Your task to perform on an android device: empty trash in google photos Image 0: 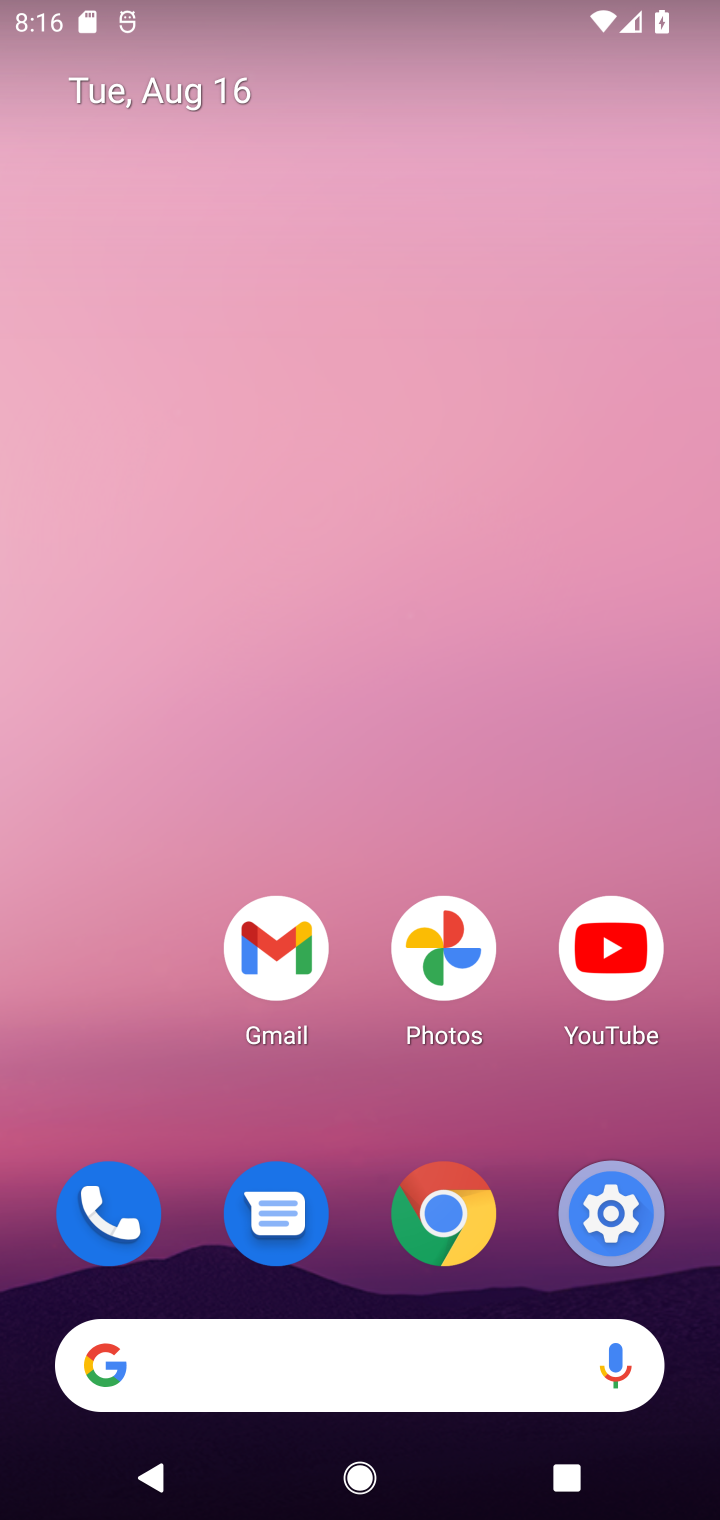
Step 0: drag from (161, 1164) to (219, 288)
Your task to perform on an android device: empty trash in google photos Image 1: 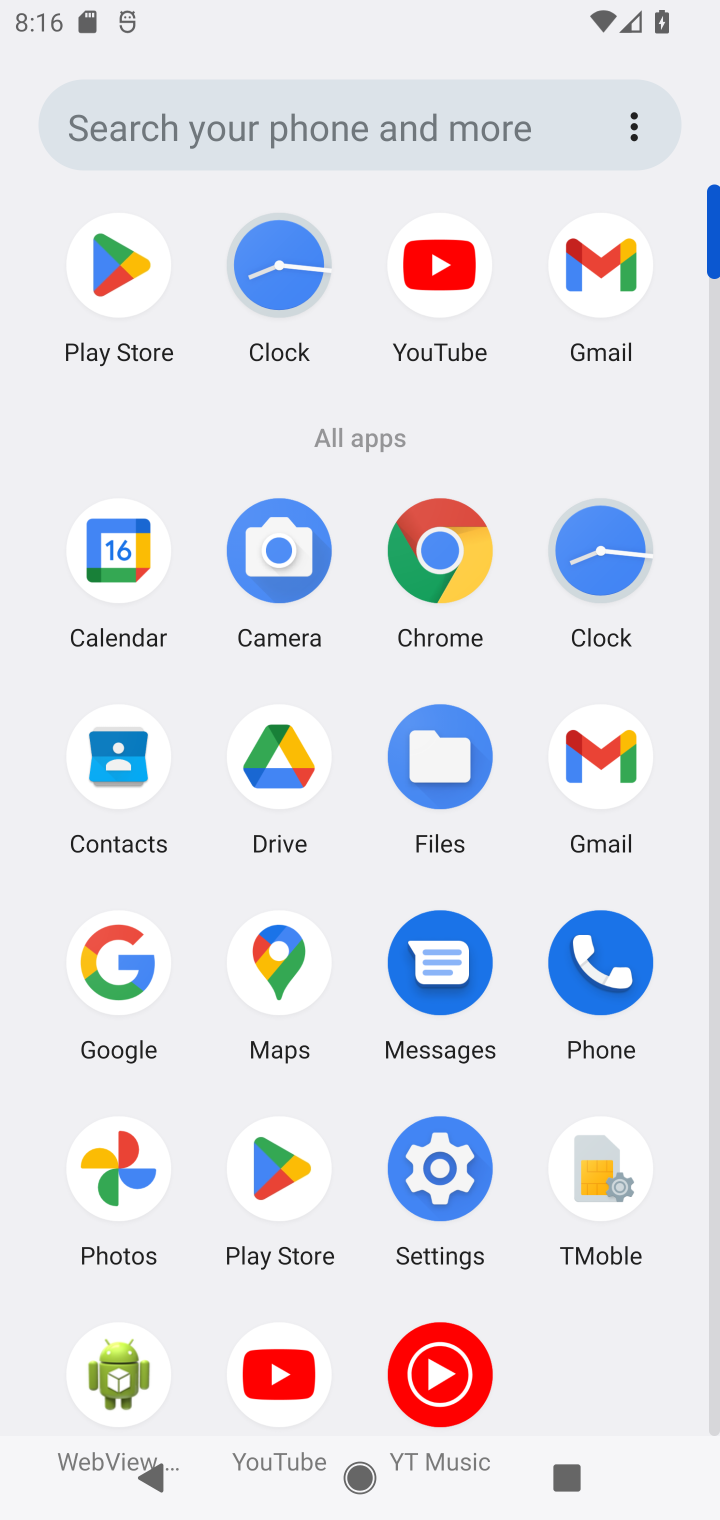
Step 1: click (588, 738)
Your task to perform on an android device: empty trash in google photos Image 2: 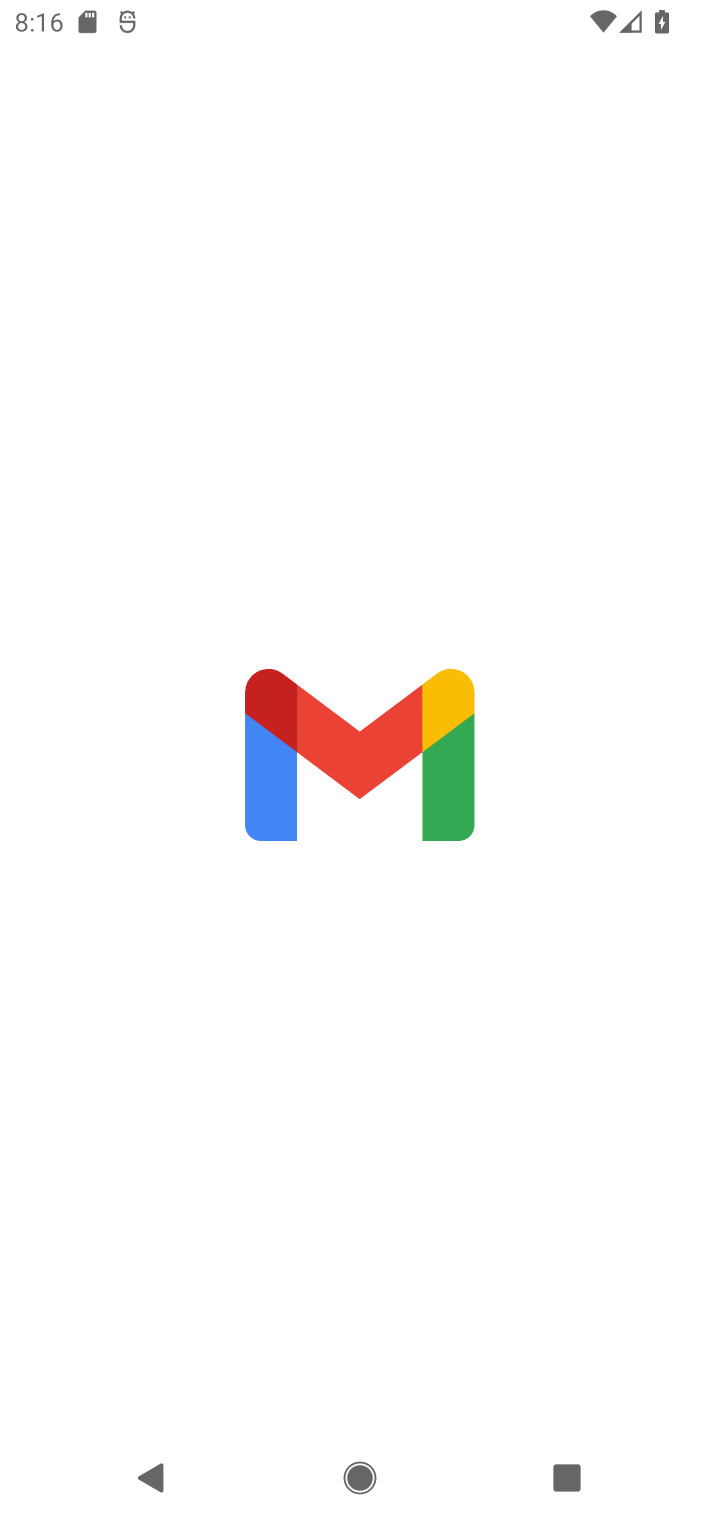
Step 2: click (412, 1227)
Your task to perform on an android device: empty trash in google photos Image 3: 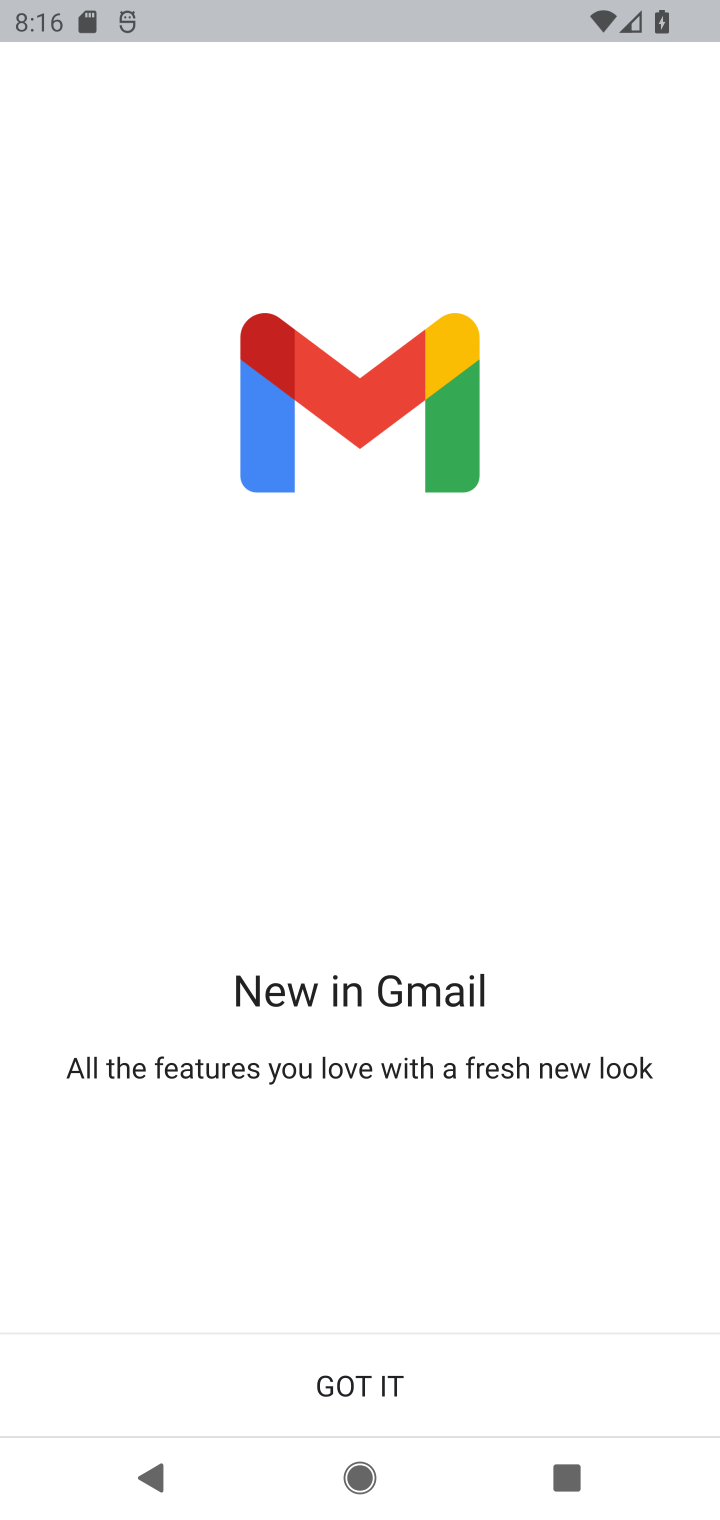
Step 3: click (412, 1227)
Your task to perform on an android device: empty trash in google photos Image 4: 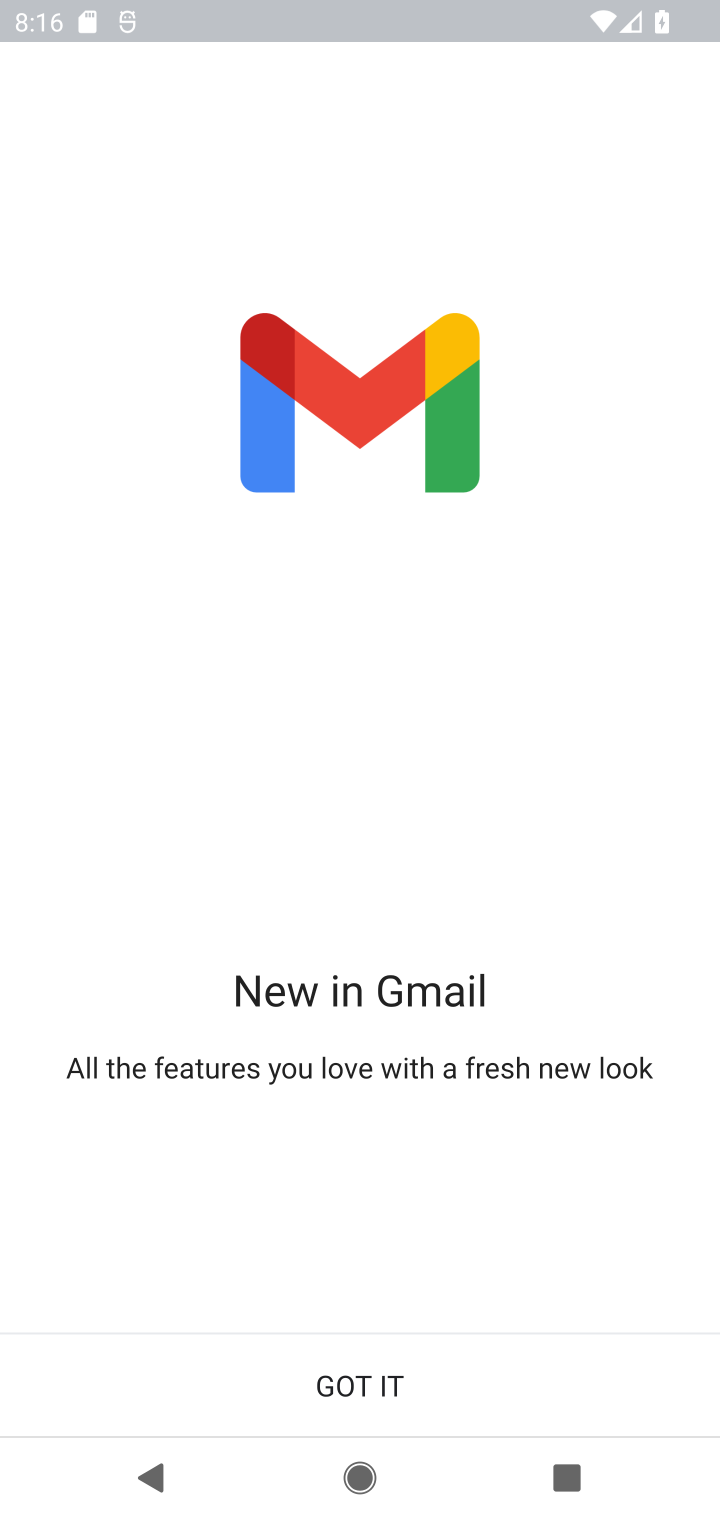
Step 4: click (365, 1351)
Your task to perform on an android device: empty trash in google photos Image 5: 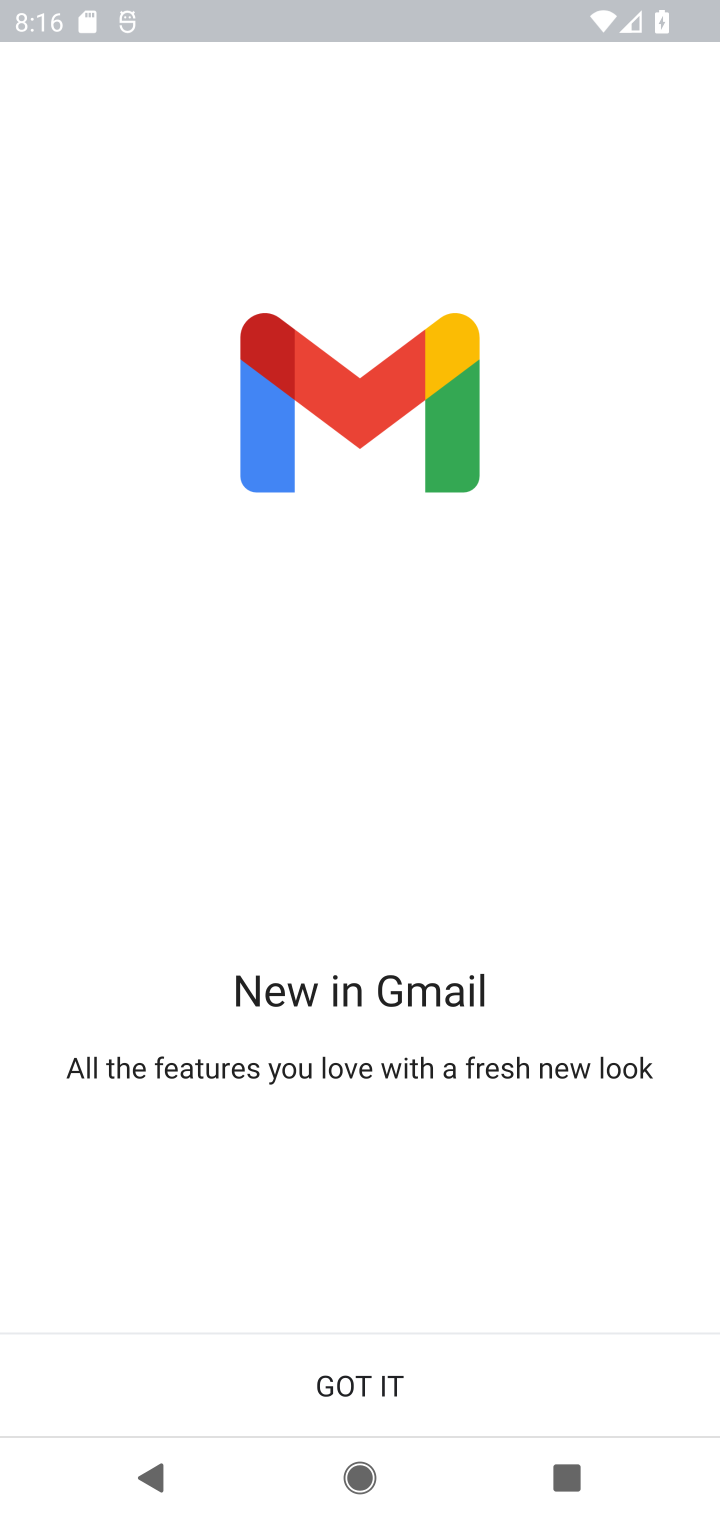
Step 5: click (369, 1378)
Your task to perform on an android device: empty trash in google photos Image 6: 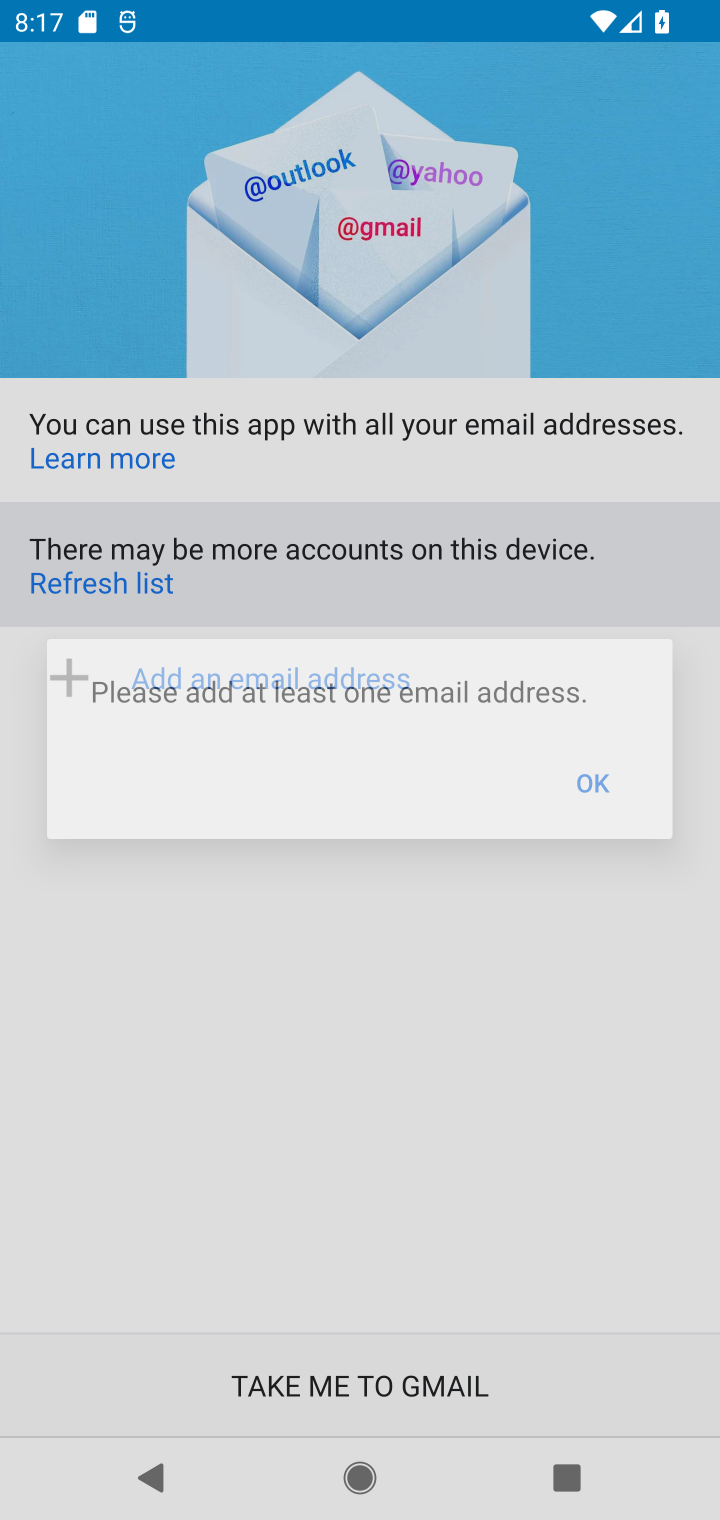
Step 6: click (369, 1378)
Your task to perform on an android device: empty trash in google photos Image 7: 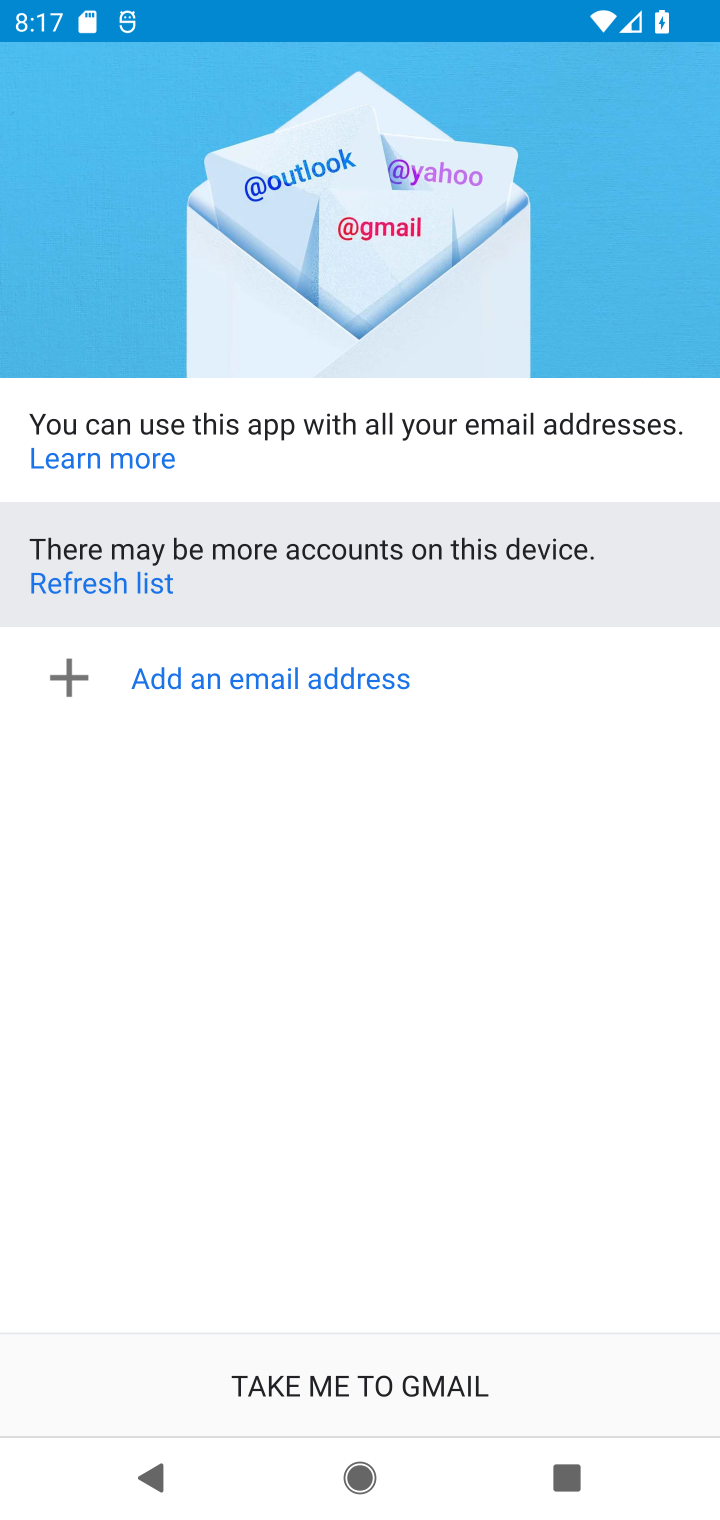
Step 7: task complete